Your task to perform on an android device: find photos in the google photos app Image 0: 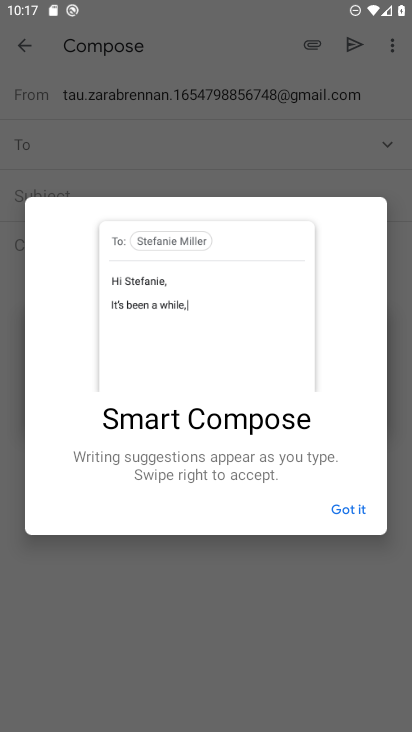
Step 0: press home button
Your task to perform on an android device: find photos in the google photos app Image 1: 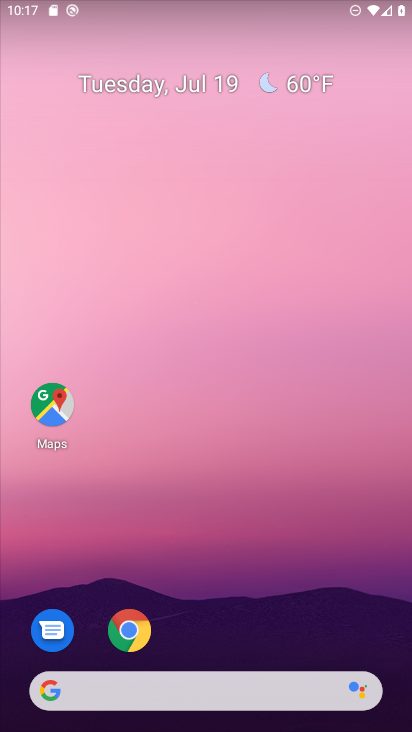
Step 1: drag from (30, 656) to (275, 34)
Your task to perform on an android device: find photos in the google photos app Image 2: 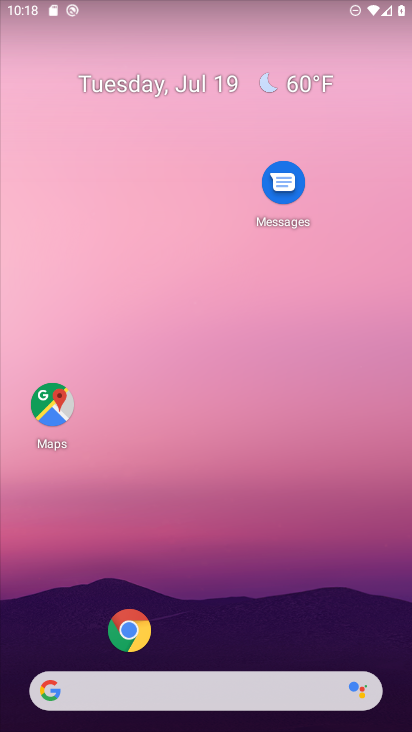
Step 2: drag from (46, 625) to (229, 104)
Your task to perform on an android device: find photos in the google photos app Image 3: 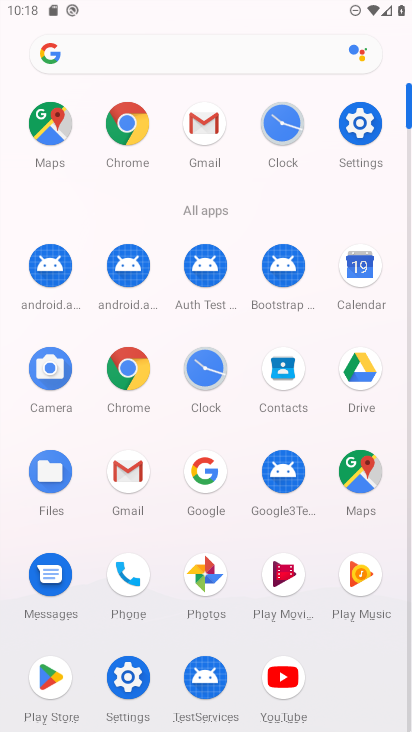
Step 3: click (207, 580)
Your task to perform on an android device: find photos in the google photos app Image 4: 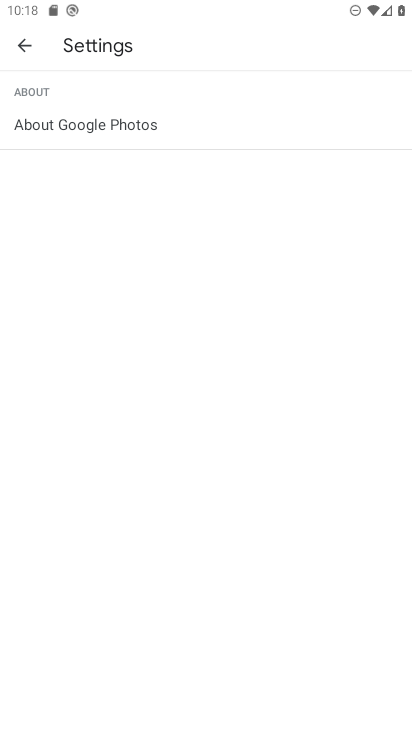
Step 4: click (18, 39)
Your task to perform on an android device: find photos in the google photos app Image 5: 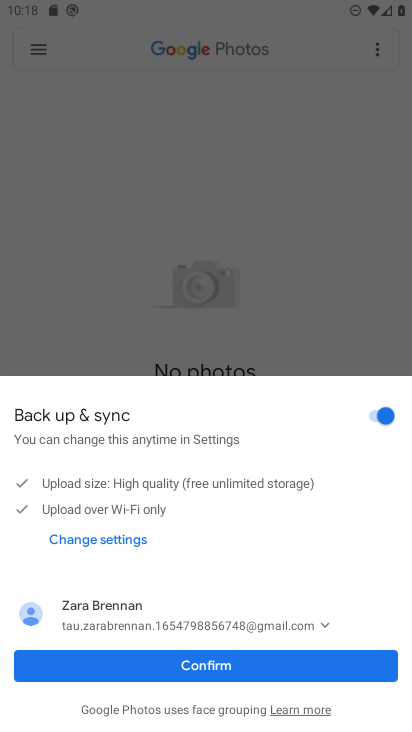
Step 5: click (264, 662)
Your task to perform on an android device: find photos in the google photos app Image 6: 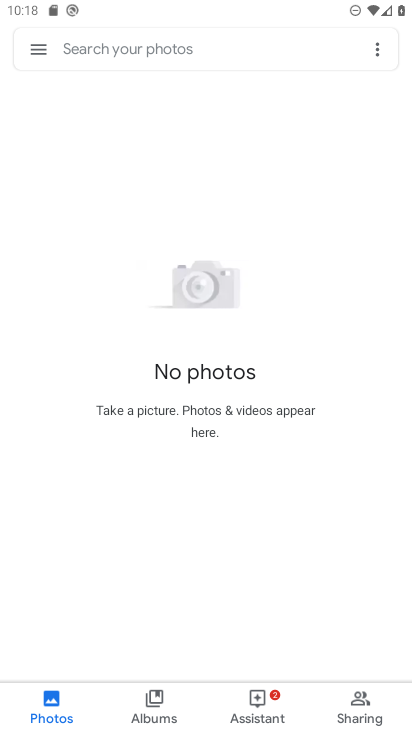
Step 6: task complete